Your task to perform on an android device: Open Google Chrome and click the shortcut for Amazon.com Image 0: 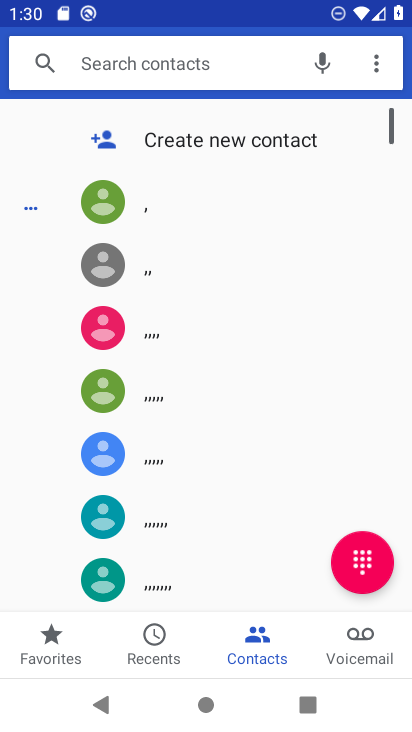
Step 0: press home button
Your task to perform on an android device: Open Google Chrome and click the shortcut for Amazon.com Image 1: 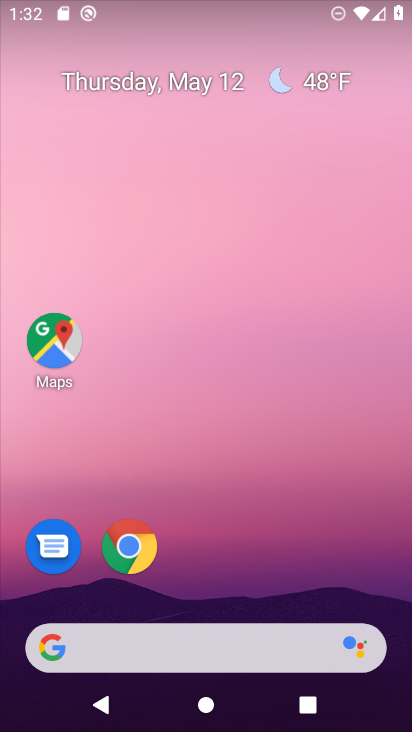
Step 1: drag from (285, 639) to (328, 171)
Your task to perform on an android device: Open Google Chrome and click the shortcut for Amazon.com Image 2: 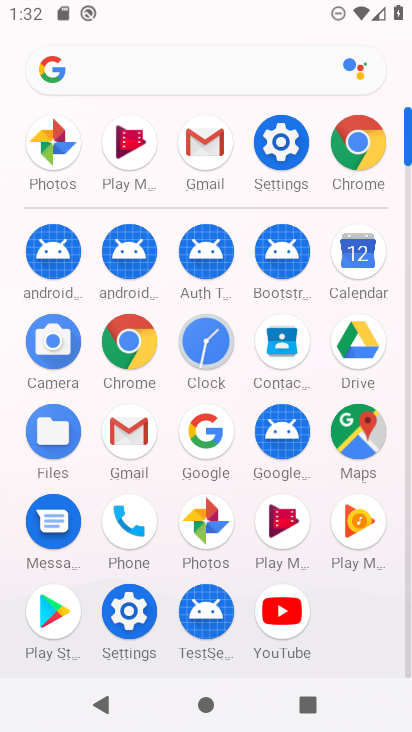
Step 2: click (344, 148)
Your task to perform on an android device: Open Google Chrome and click the shortcut for Amazon.com Image 3: 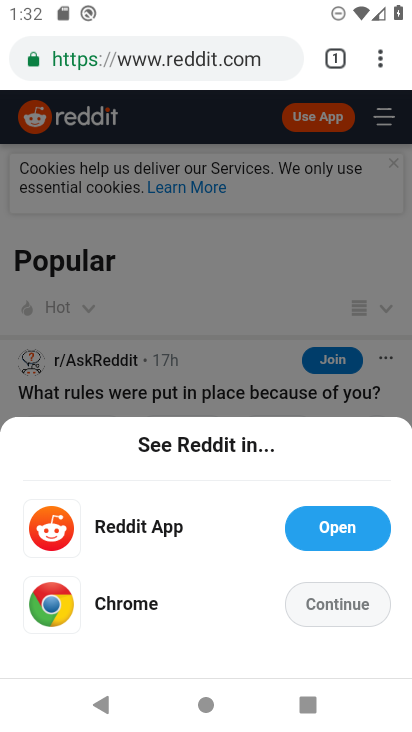
Step 3: click (326, 61)
Your task to perform on an android device: Open Google Chrome and click the shortcut for Amazon.com Image 4: 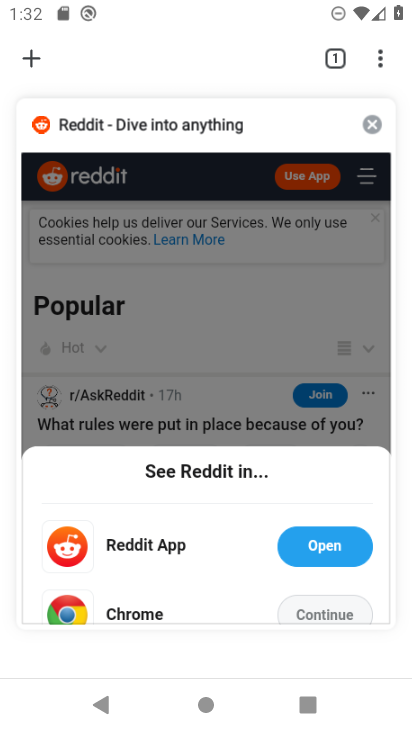
Step 4: click (38, 59)
Your task to perform on an android device: Open Google Chrome and click the shortcut for Amazon.com Image 5: 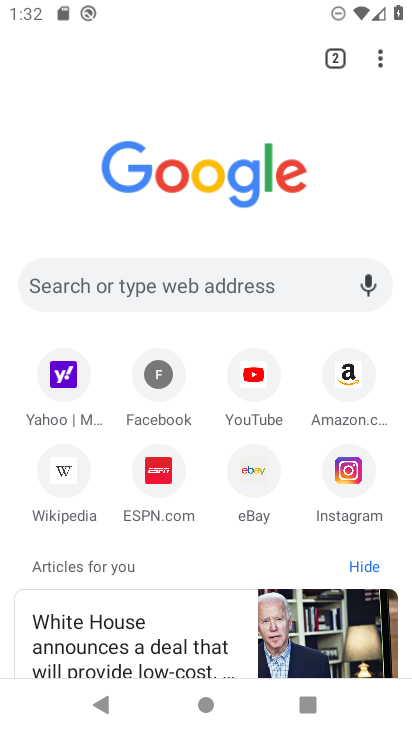
Step 5: click (347, 371)
Your task to perform on an android device: Open Google Chrome and click the shortcut for Amazon.com Image 6: 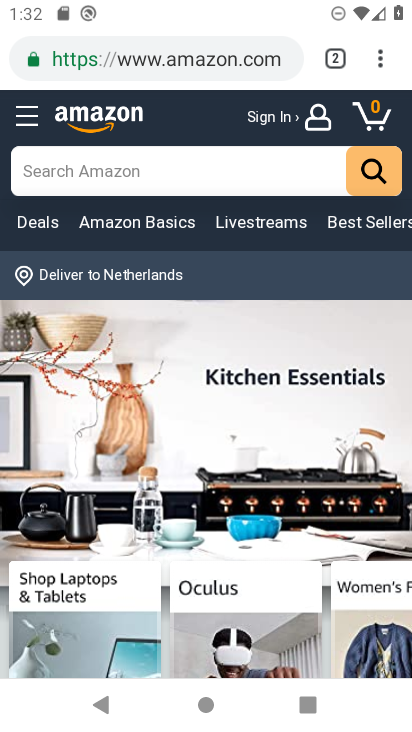
Step 6: click (375, 75)
Your task to perform on an android device: Open Google Chrome and click the shortcut for Amazon.com Image 7: 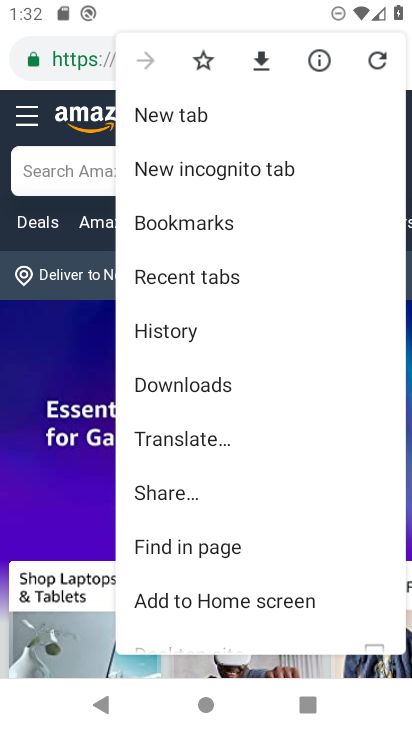
Step 7: click (219, 601)
Your task to perform on an android device: Open Google Chrome and click the shortcut for Amazon.com Image 8: 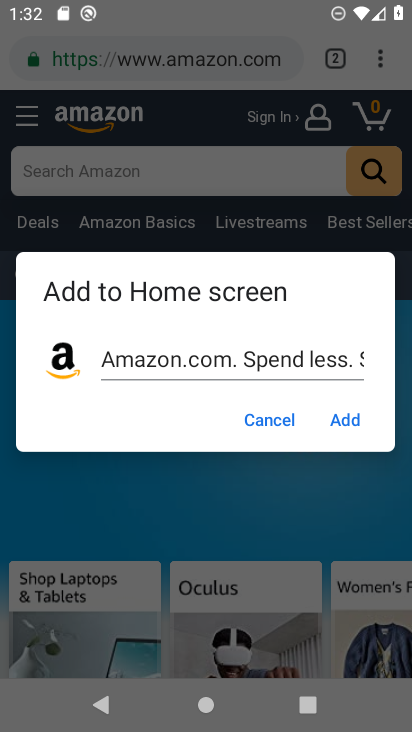
Step 8: click (336, 415)
Your task to perform on an android device: Open Google Chrome and click the shortcut for Amazon.com Image 9: 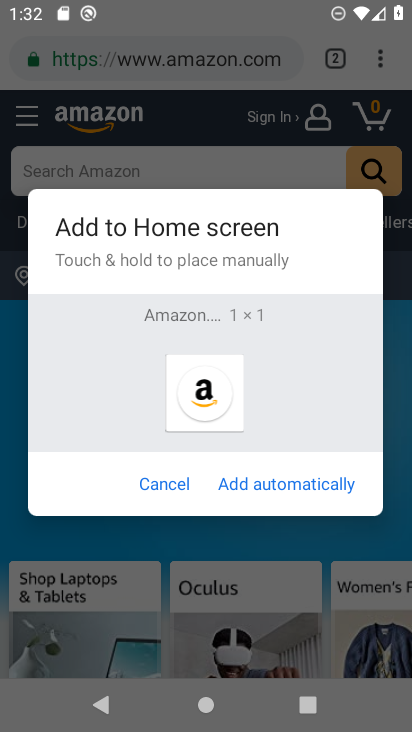
Step 9: click (304, 488)
Your task to perform on an android device: Open Google Chrome and click the shortcut for Amazon.com Image 10: 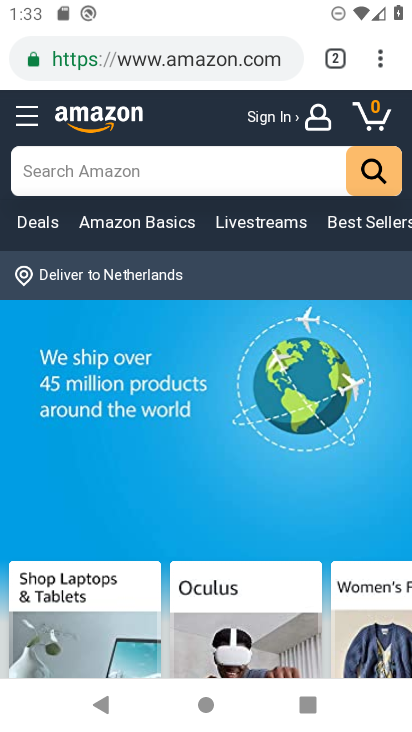
Step 10: task complete